Your task to perform on an android device: snooze an email in the gmail app Image 0: 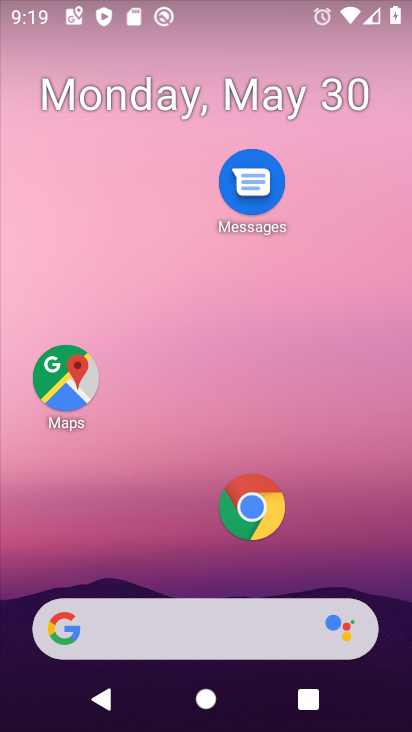
Step 0: drag from (216, 553) to (210, 408)
Your task to perform on an android device: snooze an email in the gmail app Image 1: 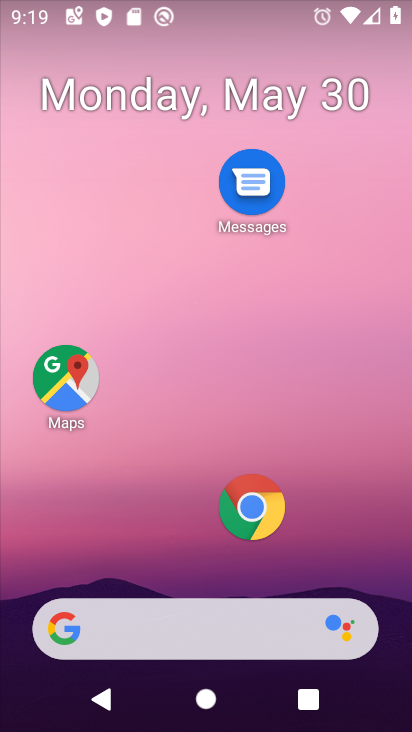
Step 1: drag from (172, 461) to (141, 166)
Your task to perform on an android device: snooze an email in the gmail app Image 2: 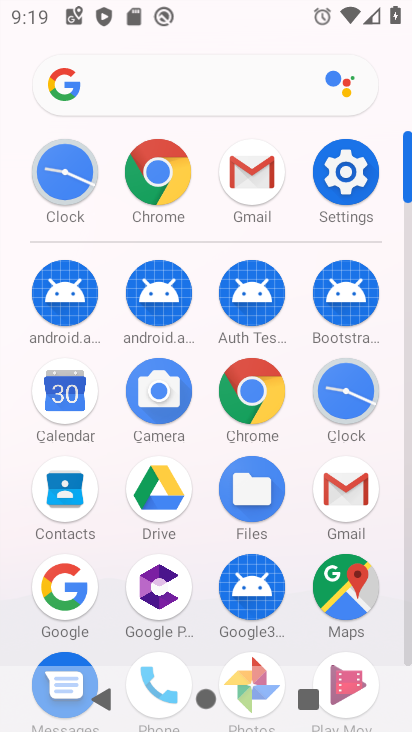
Step 2: click (263, 193)
Your task to perform on an android device: snooze an email in the gmail app Image 3: 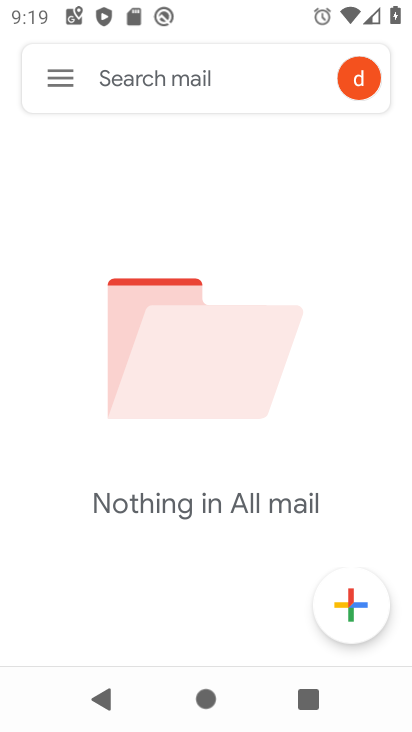
Step 3: task complete